Your task to perform on an android device: turn off javascript in the chrome app Image 0: 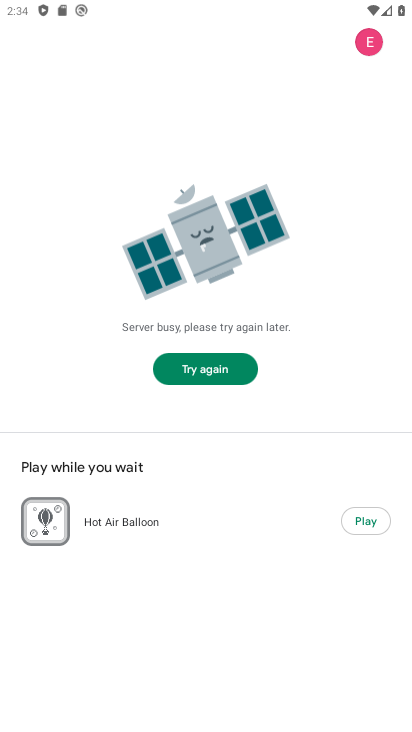
Step 0: press home button
Your task to perform on an android device: turn off javascript in the chrome app Image 1: 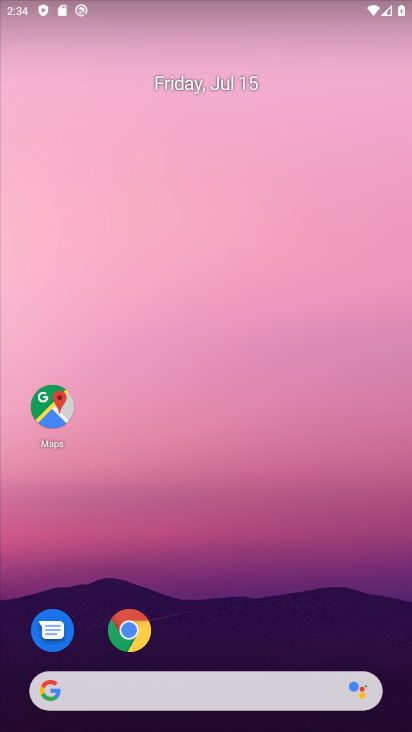
Step 1: click (114, 631)
Your task to perform on an android device: turn off javascript in the chrome app Image 2: 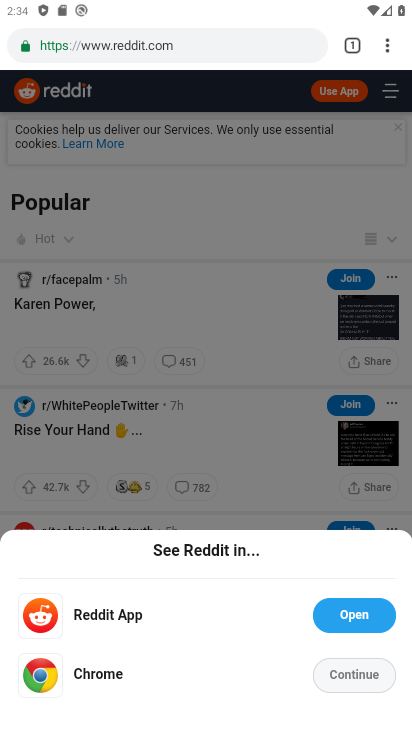
Step 2: click (387, 49)
Your task to perform on an android device: turn off javascript in the chrome app Image 3: 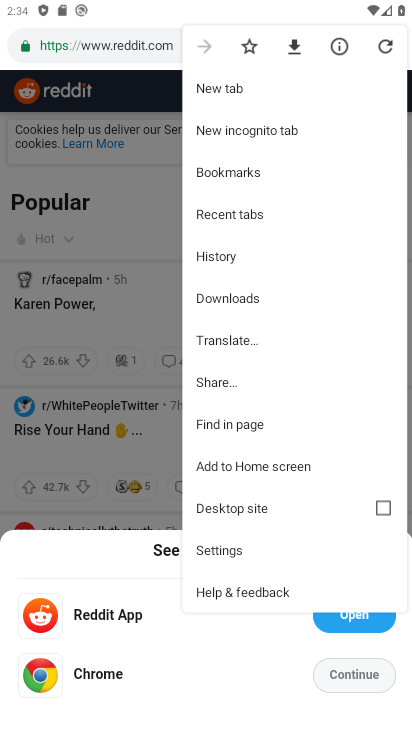
Step 3: click (247, 546)
Your task to perform on an android device: turn off javascript in the chrome app Image 4: 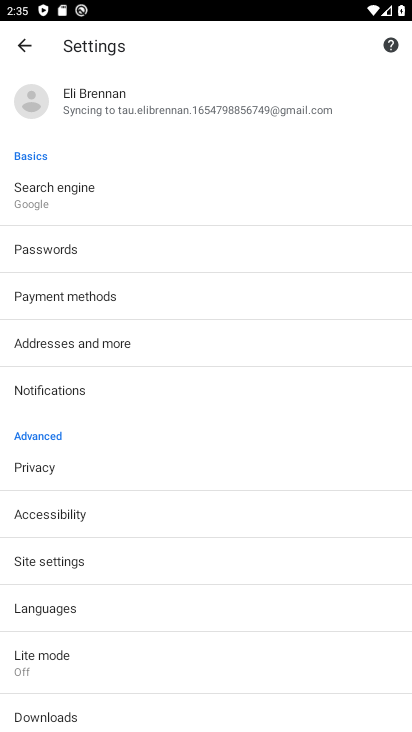
Step 4: click (82, 571)
Your task to perform on an android device: turn off javascript in the chrome app Image 5: 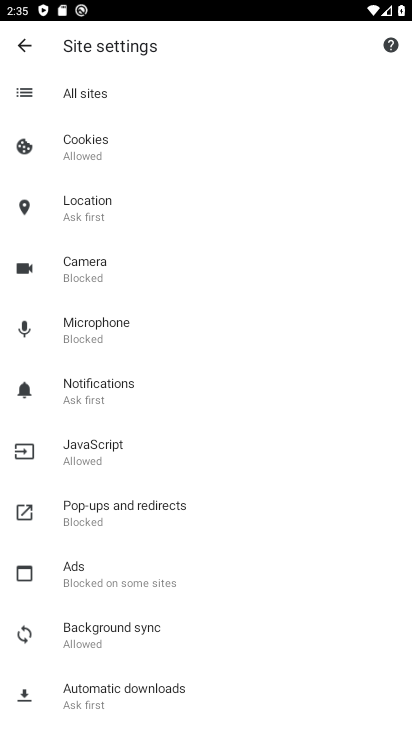
Step 5: click (120, 456)
Your task to perform on an android device: turn off javascript in the chrome app Image 6: 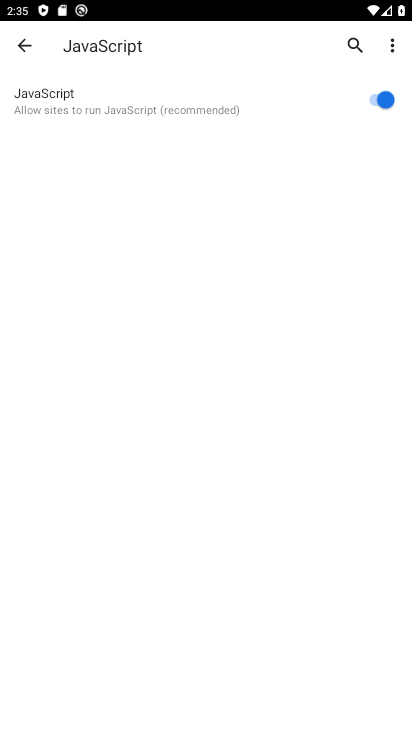
Step 6: click (370, 101)
Your task to perform on an android device: turn off javascript in the chrome app Image 7: 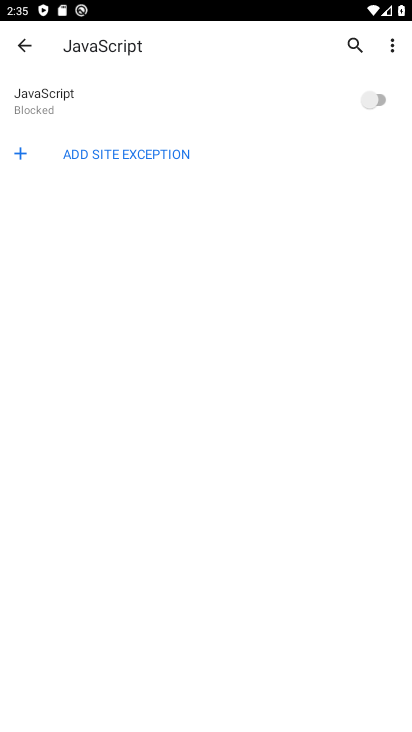
Step 7: task complete